Your task to perform on an android device: Search for bose soundlink mini on bestbuy.com, select the first entry, and add it to the cart. Image 0: 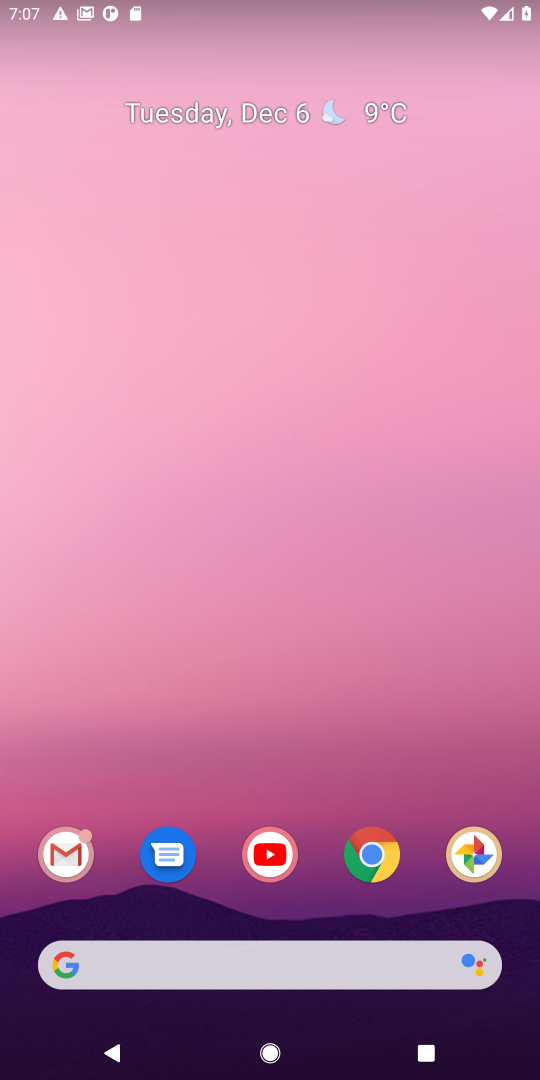
Step 0: click (382, 860)
Your task to perform on an android device: Search for bose soundlink mini on bestbuy.com, select the first entry, and add it to the cart. Image 1: 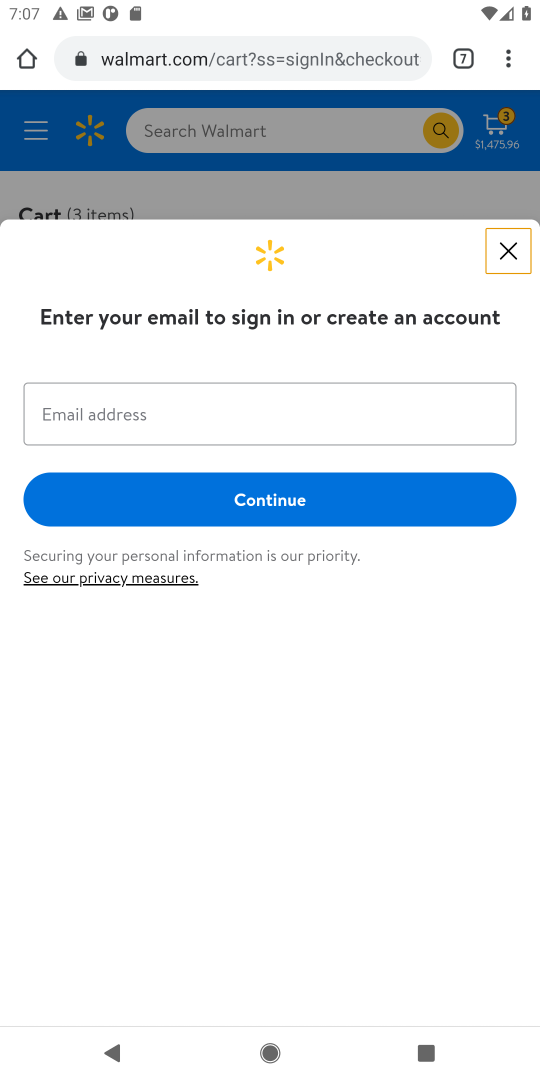
Step 1: click (468, 59)
Your task to perform on an android device: Search for bose soundlink mini on bestbuy.com, select the first entry, and add it to the cart. Image 2: 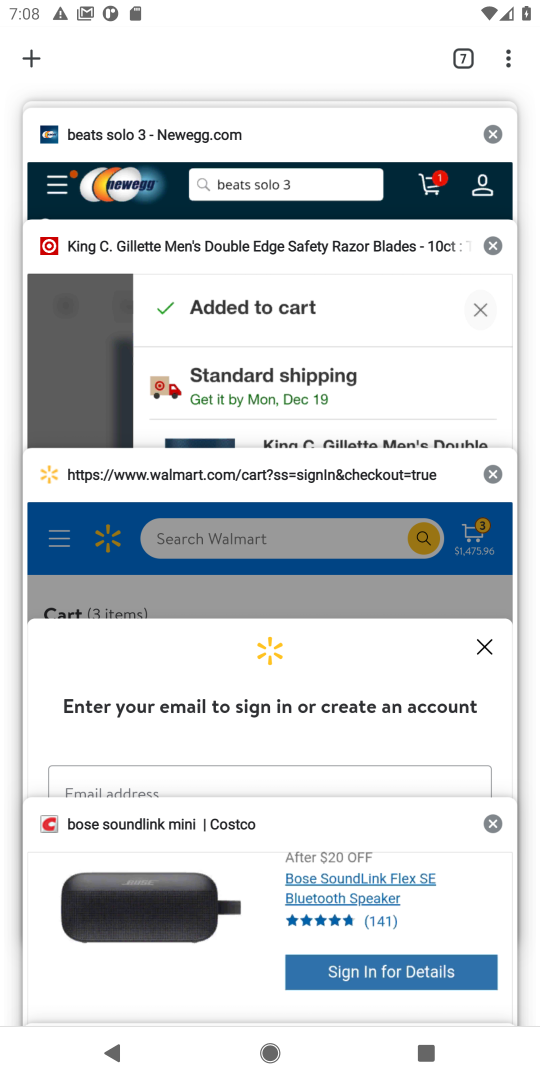
Step 2: drag from (357, 103) to (347, 414)
Your task to perform on an android device: Search for bose soundlink mini on bestbuy.com, select the first entry, and add it to the cart. Image 3: 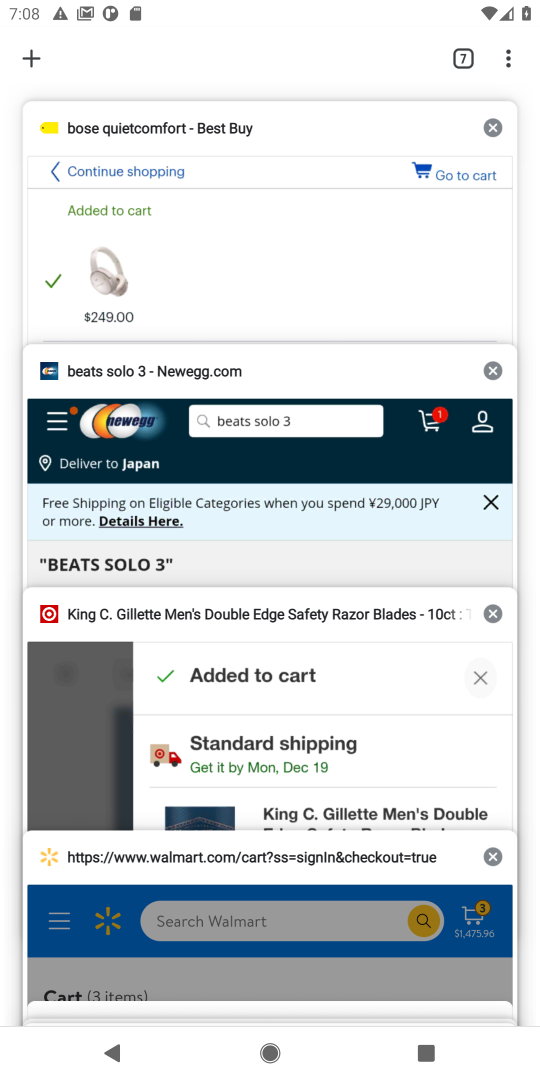
Step 3: click (272, 162)
Your task to perform on an android device: Search for bose soundlink mini on bestbuy.com, select the first entry, and add it to the cart. Image 4: 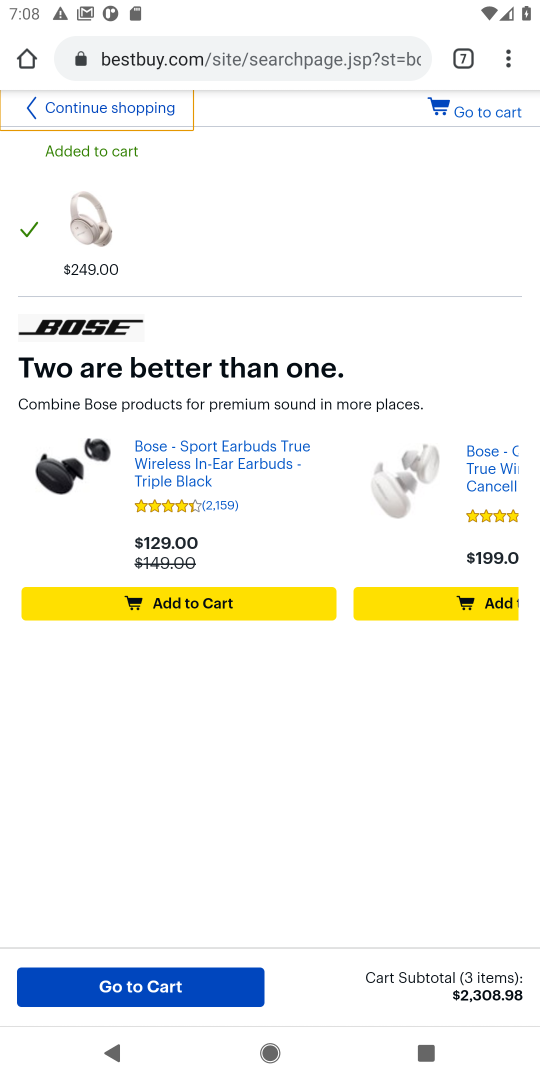
Step 4: click (156, 100)
Your task to perform on an android device: Search for bose soundlink mini on bestbuy.com, select the first entry, and add it to the cart. Image 5: 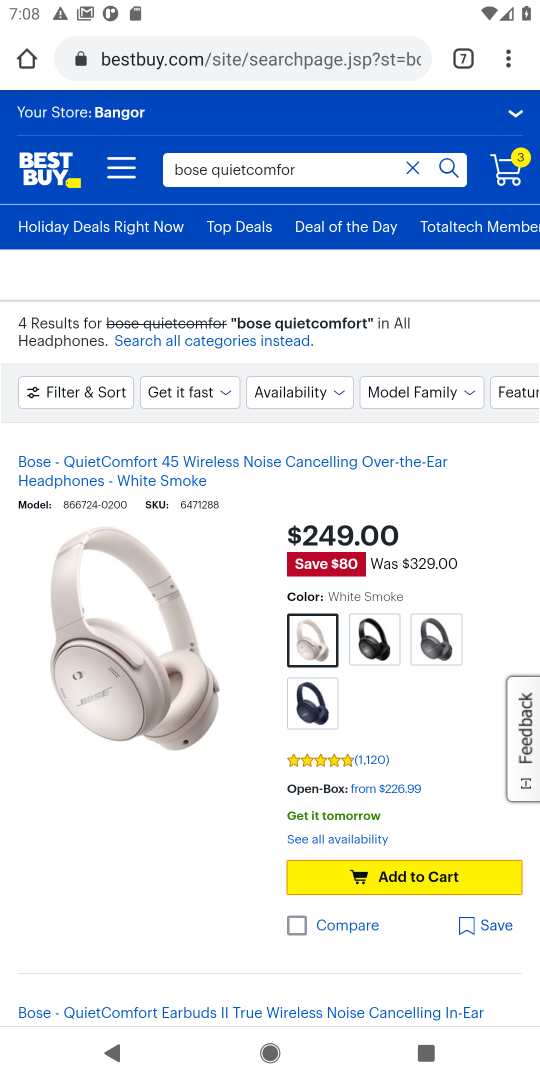
Step 5: click (416, 163)
Your task to perform on an android device: Search for bose soundlink mini on bestbuy.com, select the first entry, and add it to the cart. Image 6: 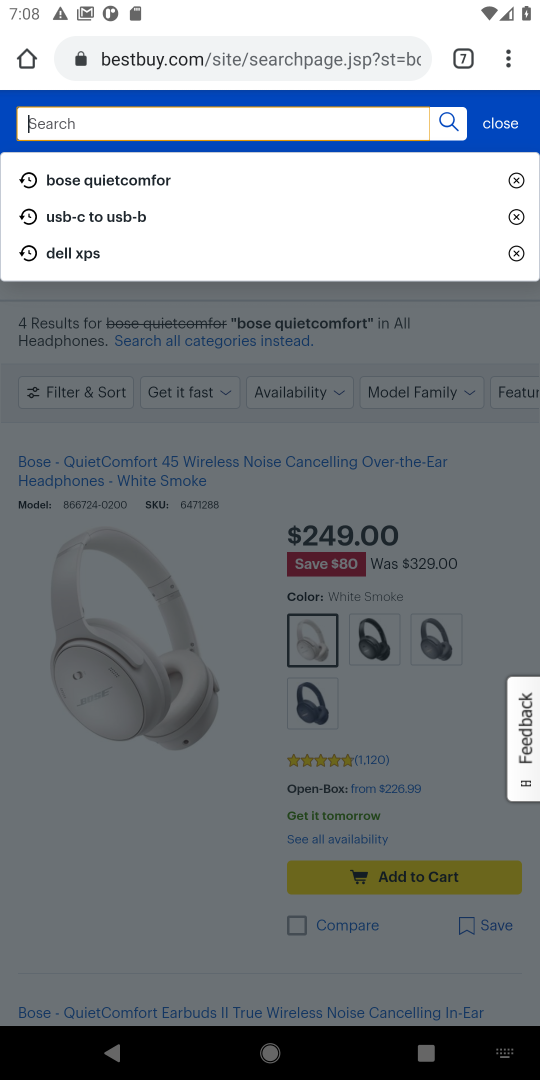
Step 6: type "bose soundlink mini"
Your task to perform on an android device: Search for bose soundlink mini on bestbuy.com, select the first entry, and add it to the cart. Image 7: 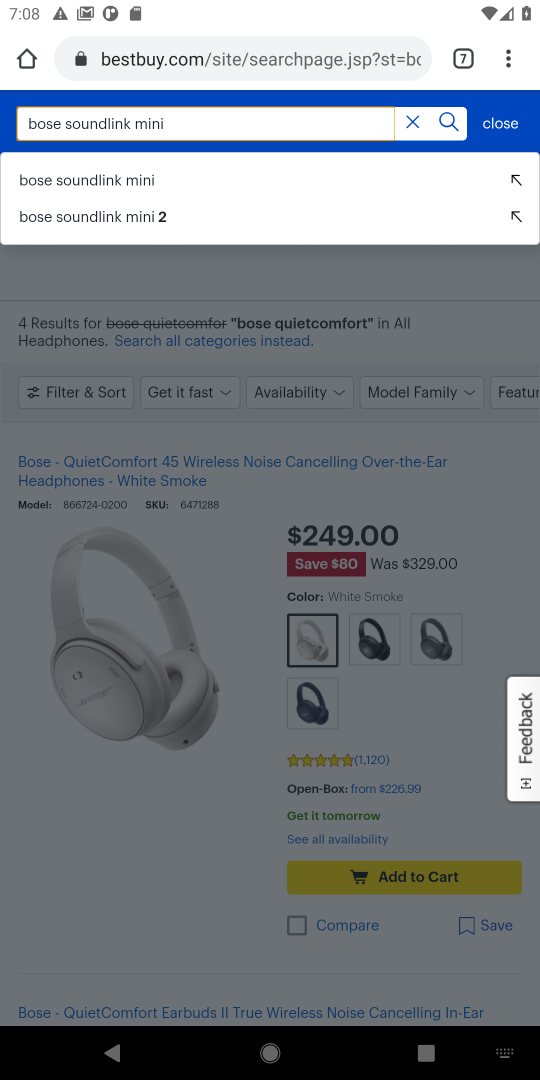
Step 7: click (75, 181)
Your task to perform on an android device: Search for bose soundlink mini on bestbuy.com, select the first entry, and add it to the cart. Image 8: 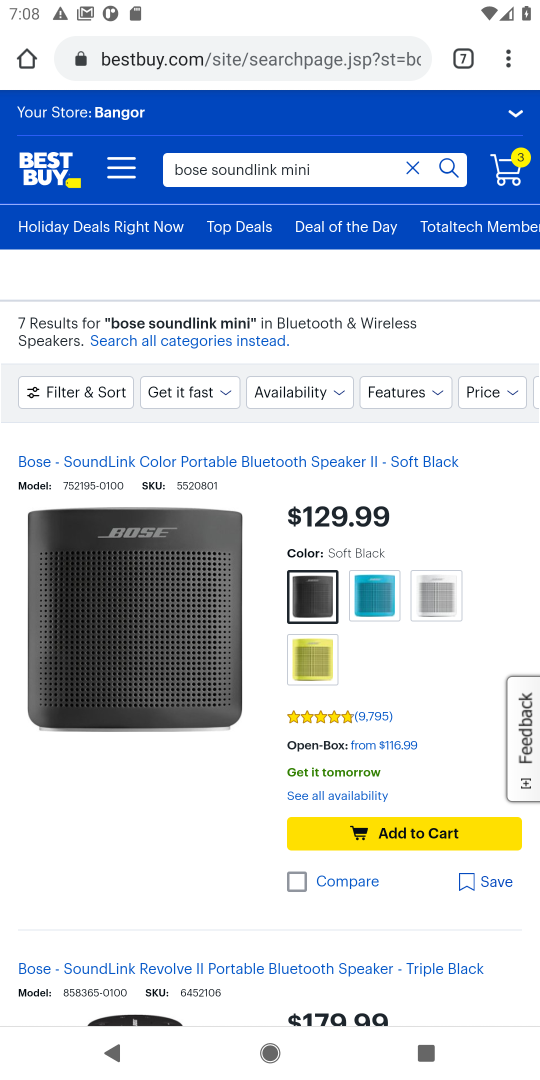
Step 8: click (405, 831)
Your task to perform on an android device: Search for bose soundlink mini on bestbuy.com, select the first entry, and add it to the cart. Image 9: 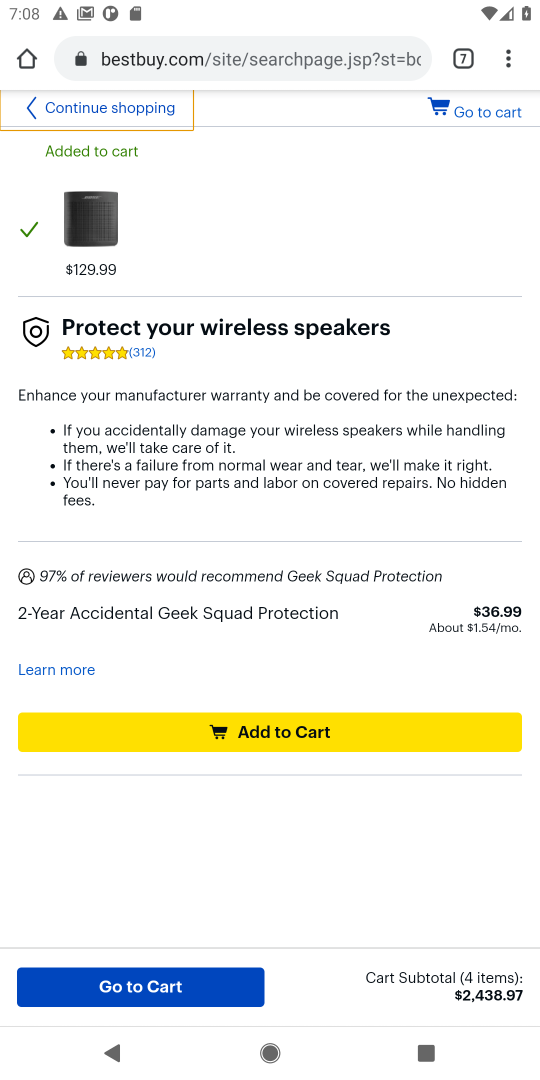
Step 9: task complete